Your task to perform on an android device: Go to accessibility settings Image 0: 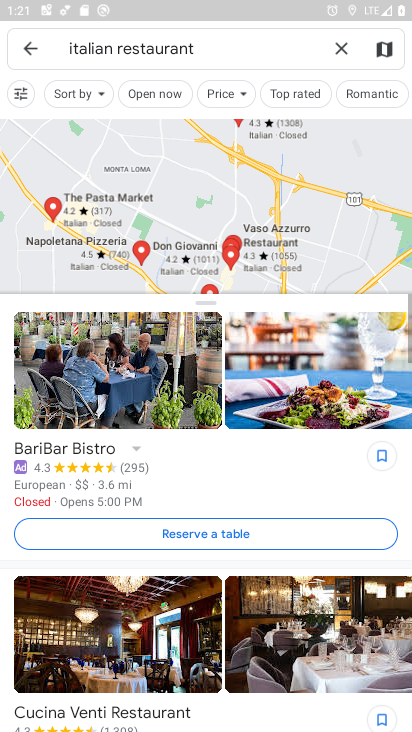
Step 0: press home button
Your task to perform on an android device: Go to accessibility settings Image 1: 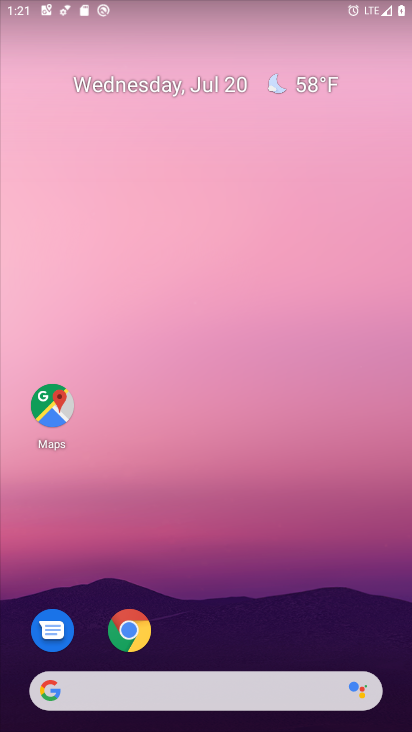
Step 1: drag from (200, 686) to (209, 158)
Your task to perform on an android device: Go to accessibility settings Image 2: 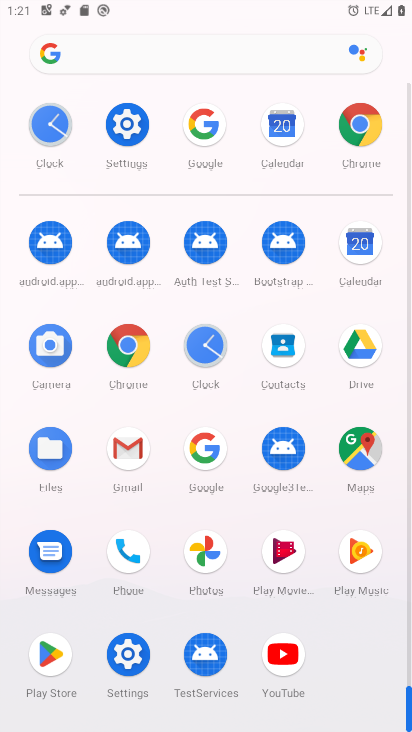
Step 2: click (128, 131)
Your task to perform on an android device: Go to accessibility settings Image 3: 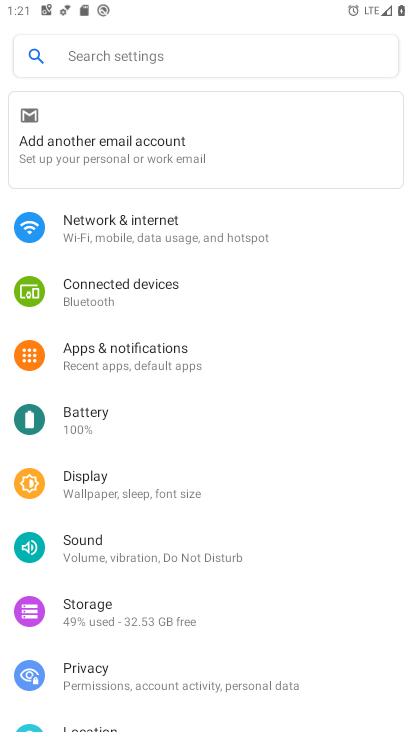
Step 3: drag from (203, 614) to (217, 182)
Your task to perform on an android device: Go to accessibility settings Image 4: 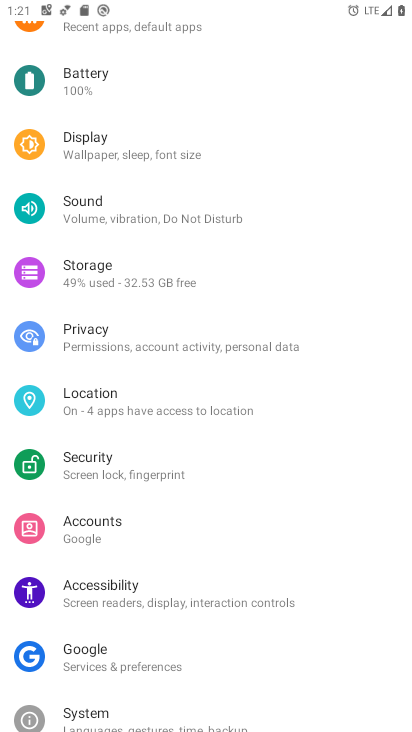
Step 4: click (237, 590)
Your task to perform on an android device: Go to accessibility settings Image 5: 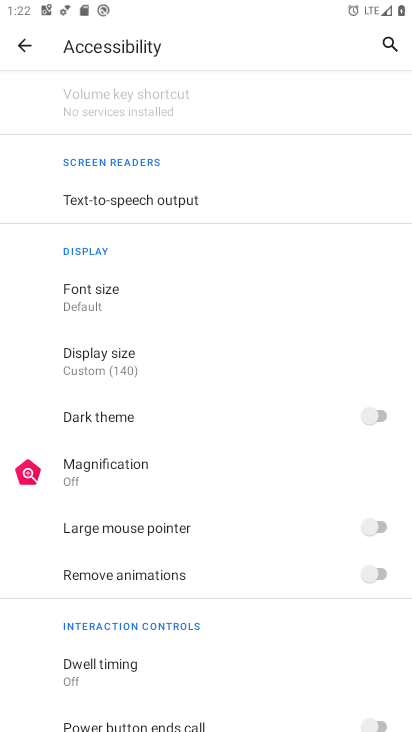
Step 5: task complete